Your task to perform on an android device: Is it going to rain this weekend? Image 0: 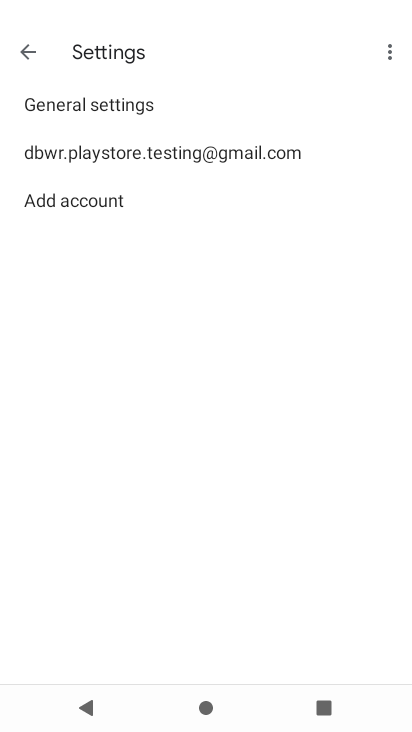
Step 0: press home button
Your task to perform on an android device: Is it going to rain this weekend? Image 1: 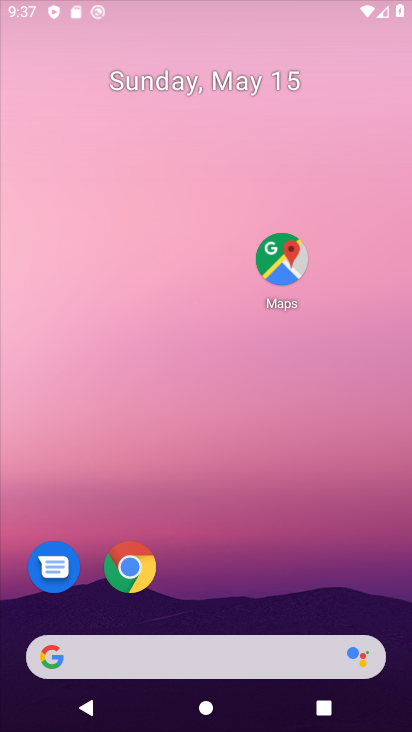
Step 1: drag from (234, 551) to (261, 45)
Your task to perform on an android device: Is it going to rain this weekend? Image 2: 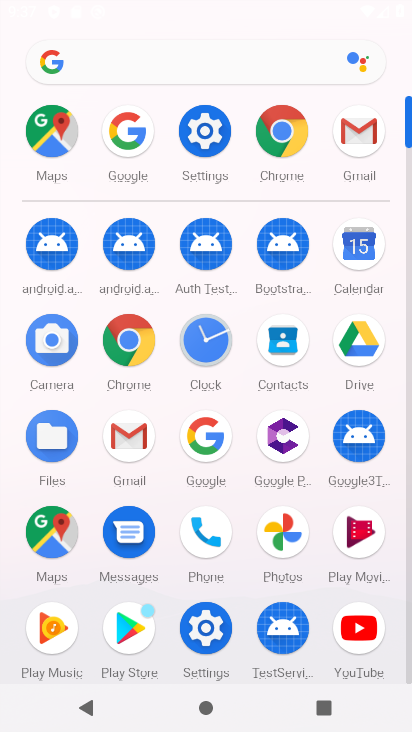
Step 2: click (207, 437)
Your task to perform on an android device: Is it going to rain this weekend? Image 3: 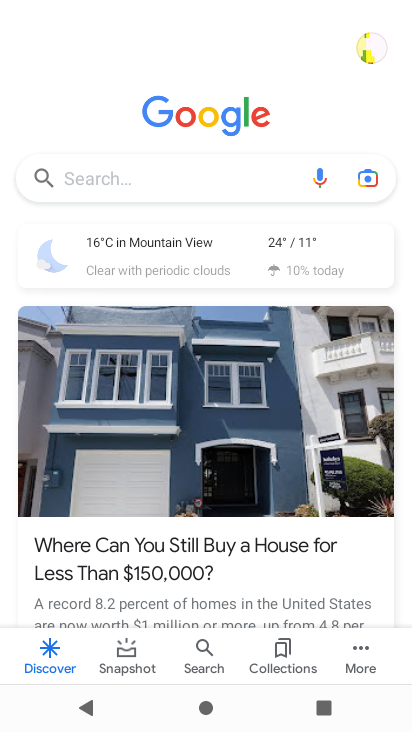
Step 3: click (193, 178)
Your task to perform on an android device: Is it going to rain this weekend? Image 4: 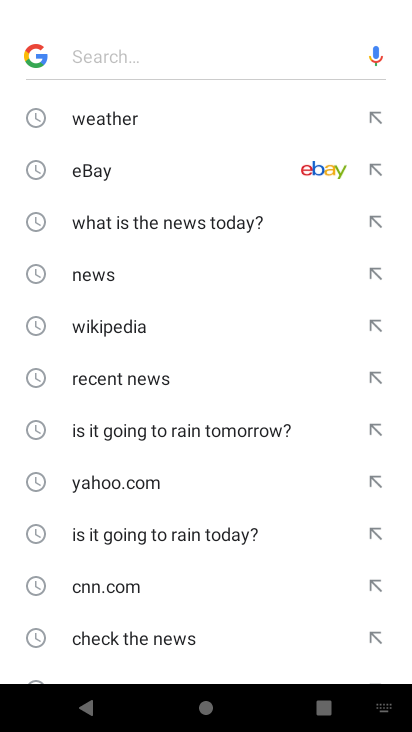
Step 4: drag from (228, 515) to (186, 247)
Your task to perform on an android device: Is it going to rain this weekend? Image 5: 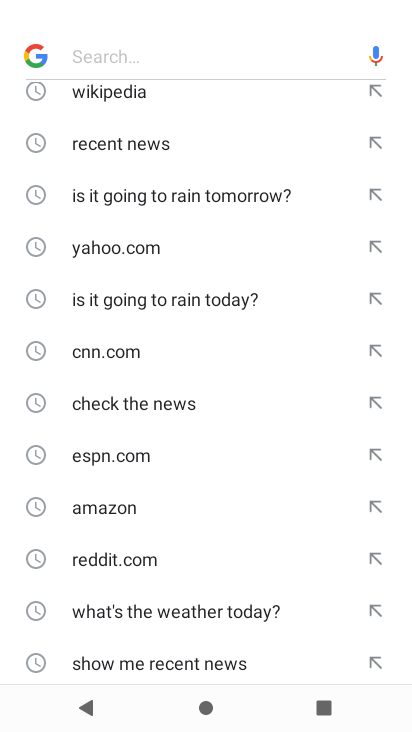
Step 5: drag from (266, 567) to (244, 203)
Your task to perform on an android device: Is it going to rain this weekend? Image 6: 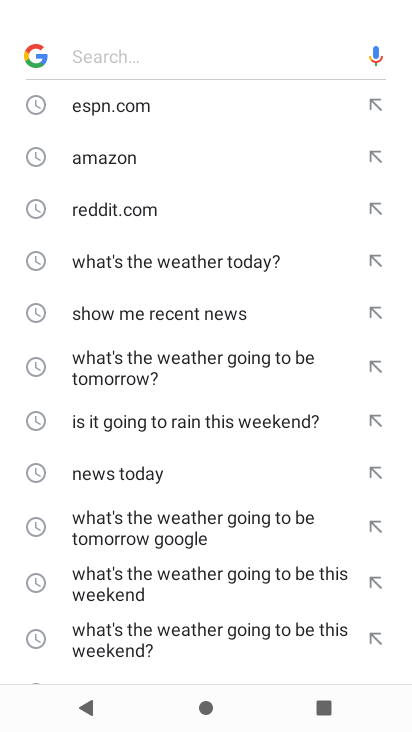
Step 6: click (210, 423)
Your task to perform on an android device: Is it going to rain this weekend? Image 7: 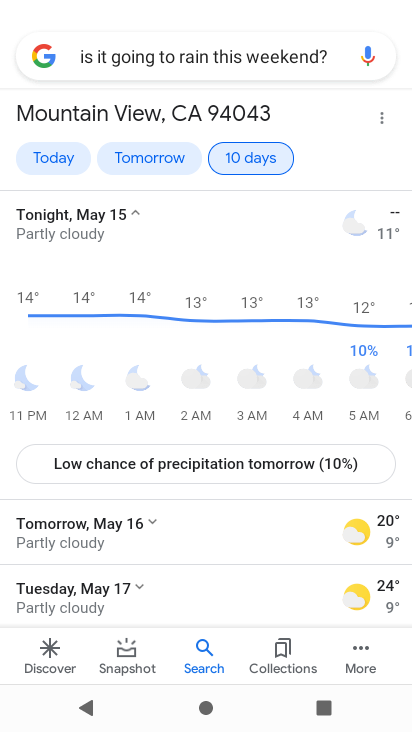
Step 7: task complete